Your task to perform on an android device: check data usage Image 0: 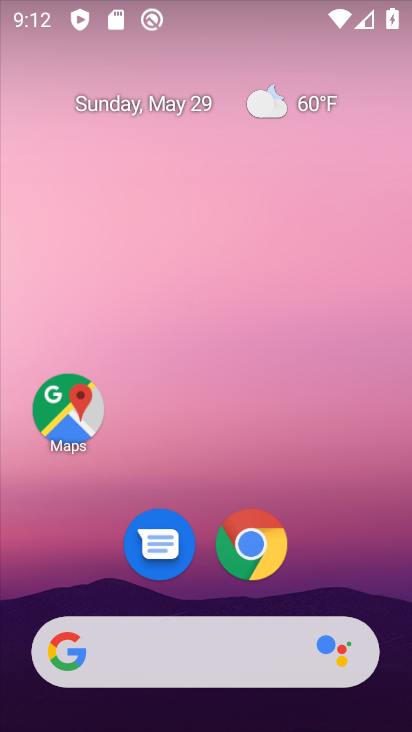
Step 0: drag from (200, 588) to (298, 104)
Your task to perform on an android device: check data usage Image 1: 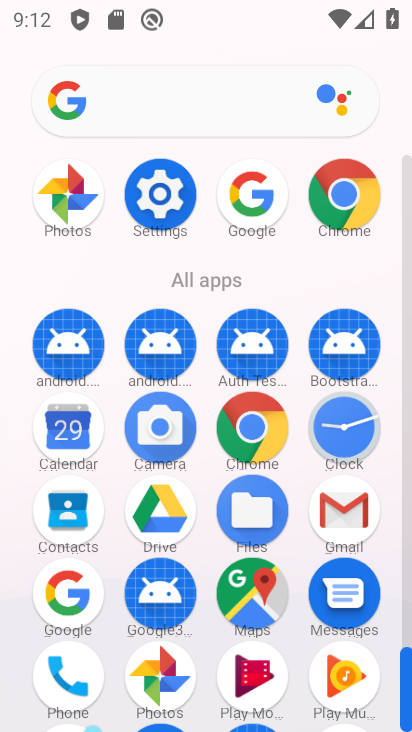
Step 1: click (167, 184)
Your task to perform on an android device: check data usage Image 2: 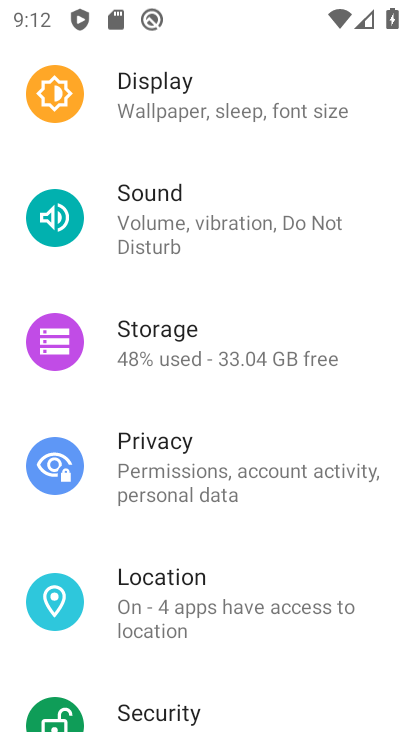
Step 2: drag from (208, 174) to (294, 677)
Your task to perform on an android device: check data usage Image 3: 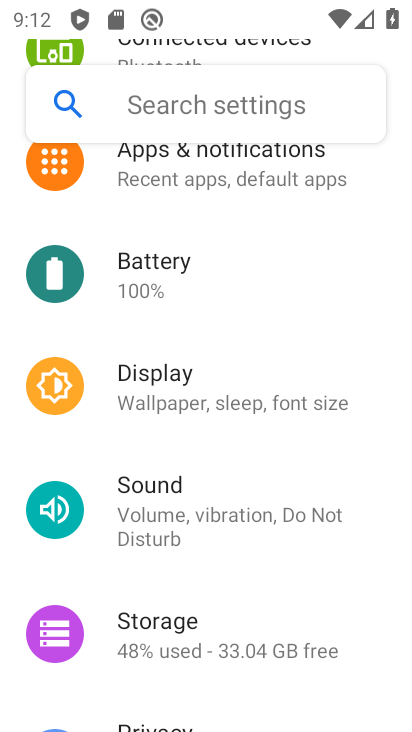
Step 3: drag from (212, 183) to (254, 668)
Your task to perform on an android device: check data usage Image 4: 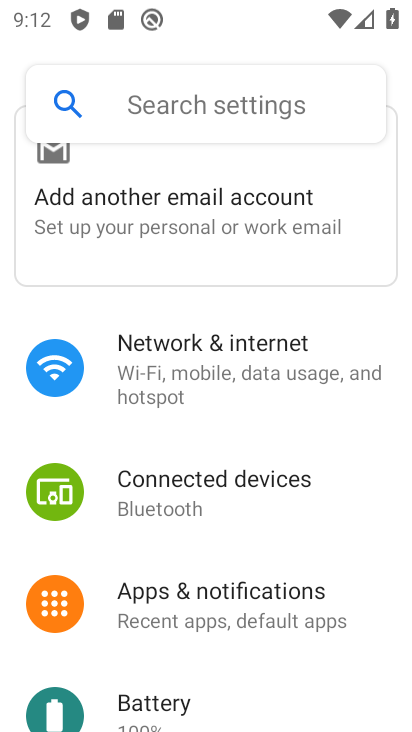
Step 4: click (217, 367)
Your task to perform on an android device: check data usage Image 5: 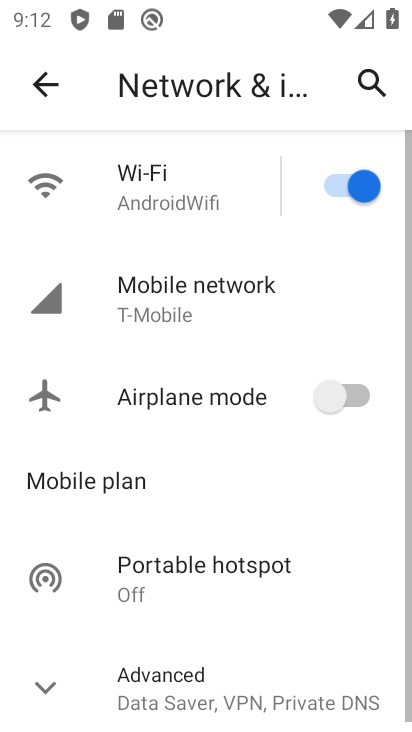
Step 5: click (191, 286)
Your task to perform on an android device: check data usage Image 6: 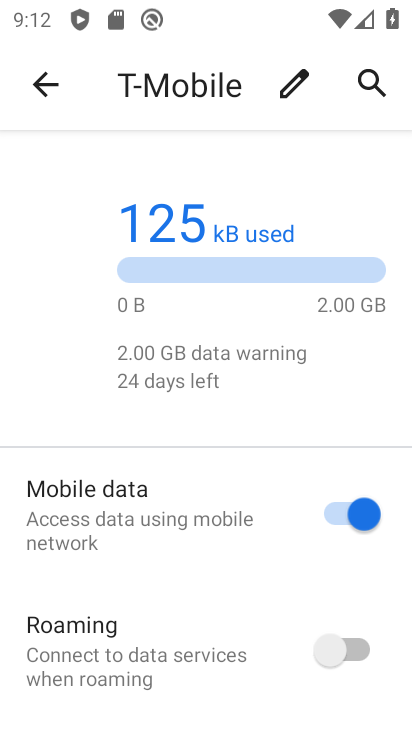
Step 6: task complete